Your task to perform on an android device: What's on my calendar tomorrow? Image 0: 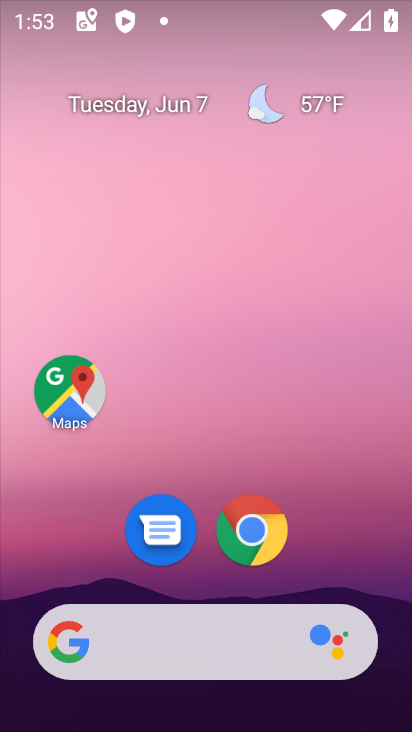
Step 0: drag from (332, 295) to (350, 155)
Your task to perform on an android device: What's on my calendar tomorrow? Image 1: 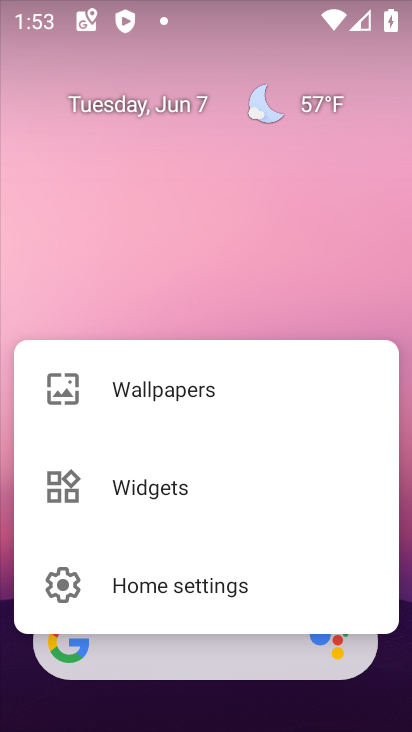
Step 1: click (200, 210)
Your task to perform on an android device: What's on my calendar tomorrow? Image 2: 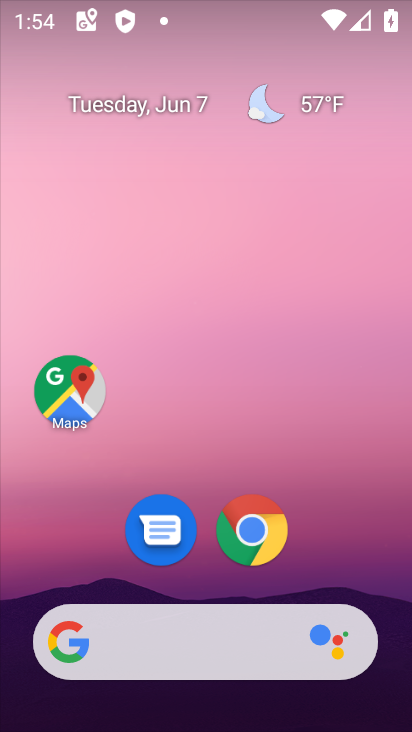
Step 2: drag from (207, 348) to (210, 163)
Your task to perform on an android device: What's on my calendar tomorrow? Image 3: 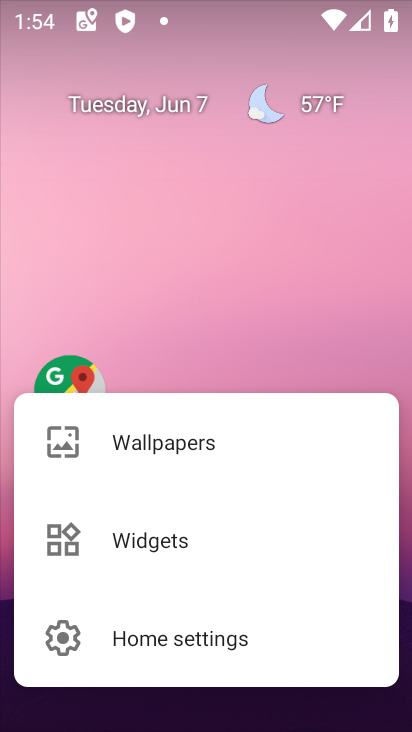
Step 3: click (254, 316)
Your task to perform on an android device: What's on my calendar tomorrow? Image 4: 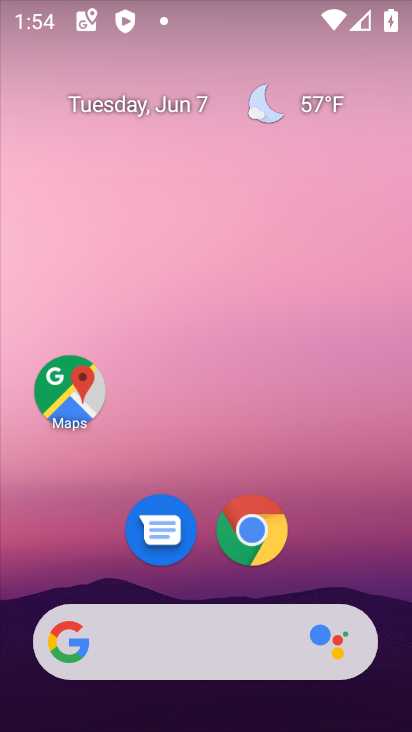
Step 4: drag from (318, 579) to (312, 144)
Your task to perform on an android device: What's on my calendar tomorrow? Image 5: 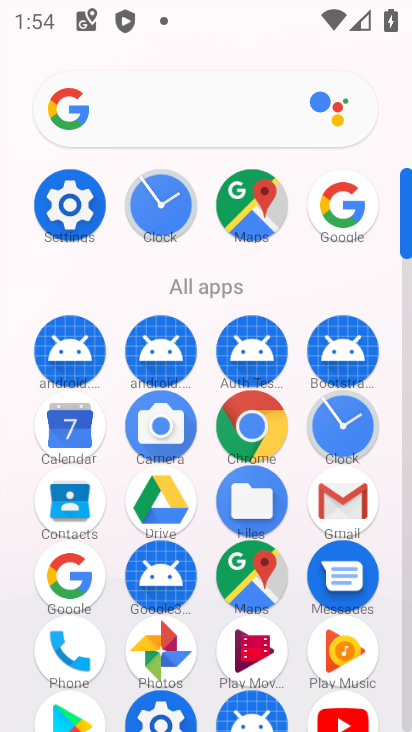
Step 5: click (68, 425)
Your task to perform on an android device: What's on my calendar tomorrow? Image 6: 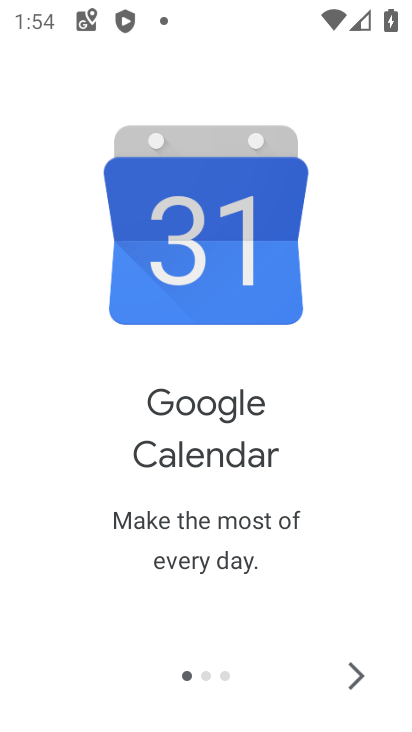
Step 6: click (327, 668)
Your task to perform on an android device: What's on my calendar tomorrow? Image 7: 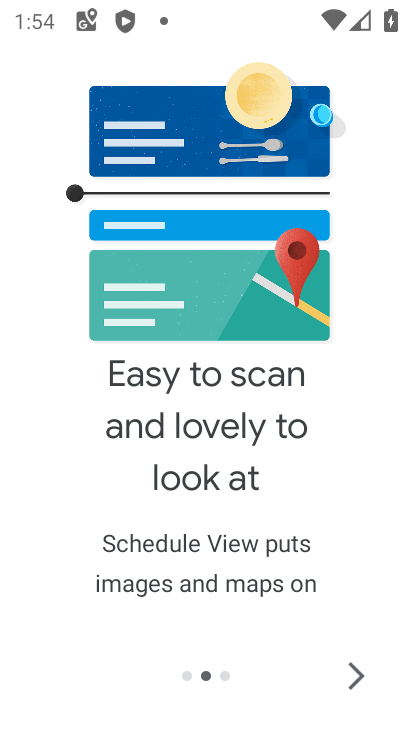
Step 7: click (326, 668)
Your task to perform on an android device: What's on my calendar tomorrow? Image 8: 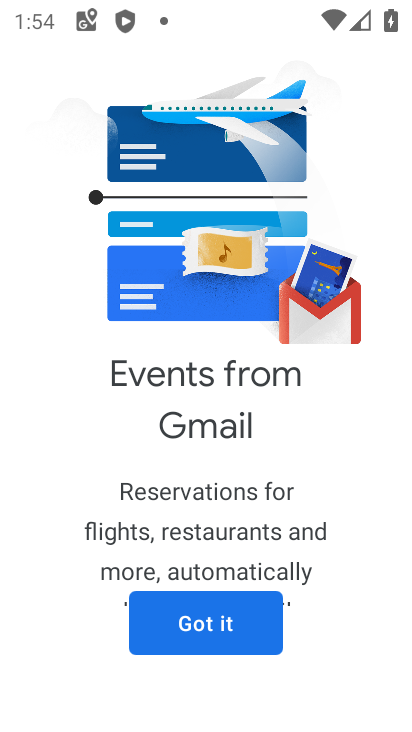
Step 8: click (253, 639)
Your task to perform on an android device: What's on my calendar tomorrow? Image 9: 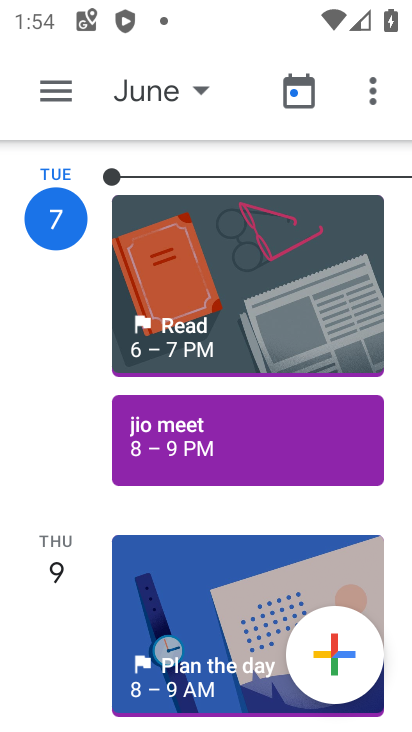
Step 9: click (191, 91)
Your task to perform on an android device: What's on my calendar tomorrow? Image 10: 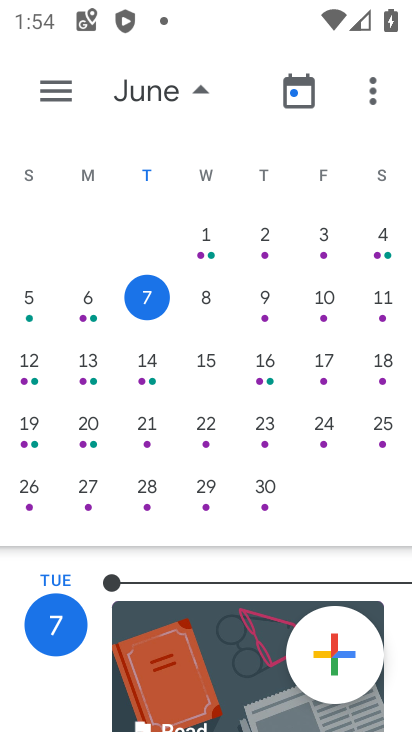
Step 10: click (210, 303)
Your task to perform on an android device: What's on my calendar tomorrow? Image 11: 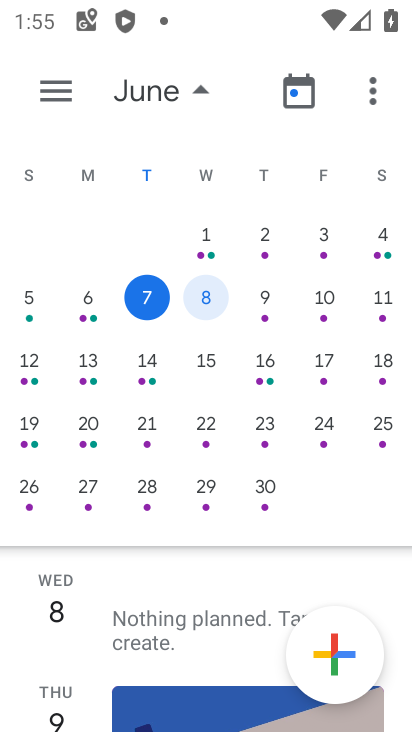
Step 11: task complete